Your task to perform on an android device: Open Google Chrome Image 0: 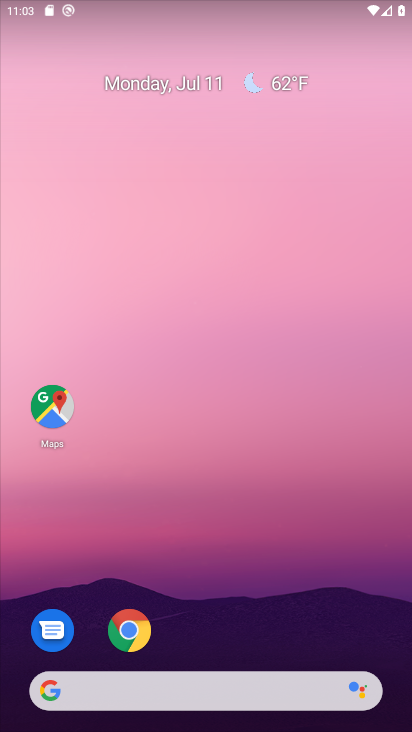
Step 0: click (128, 635)
Your task to perform on an android device: Open Google Chrome Image 1: 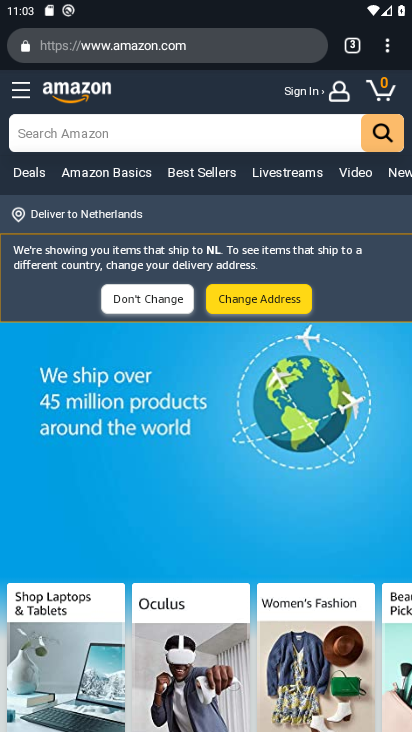
Step 1: task complete